Your task to perform on an android device: check storage Image 0: 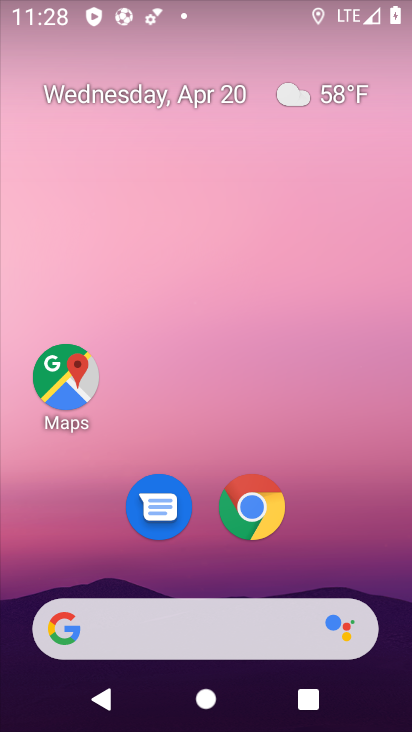
Step 0: drag from (339, 555) to (355, 129)
Your task to perform on an android device: check storage Image 1: 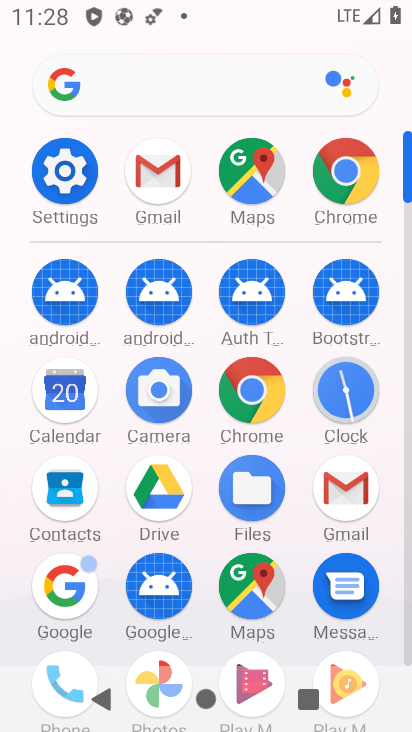
Step 1: click (56, 186)
Your task to perform on an android device: check storage Image 2: 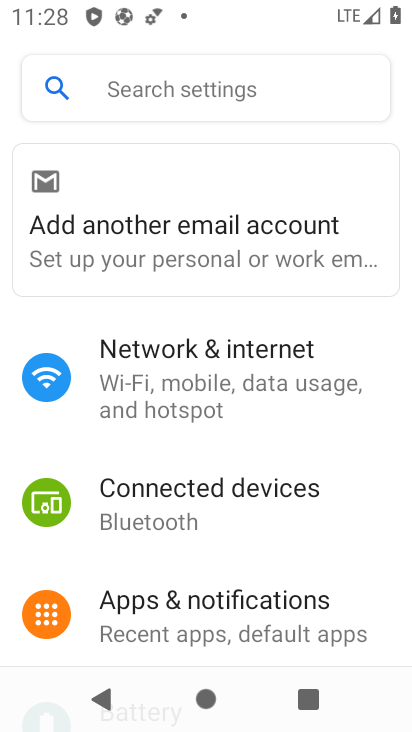
Step 2: drag from (366, 563) to (360, 415)
Your task to perform on an android device: check storage Image 3: 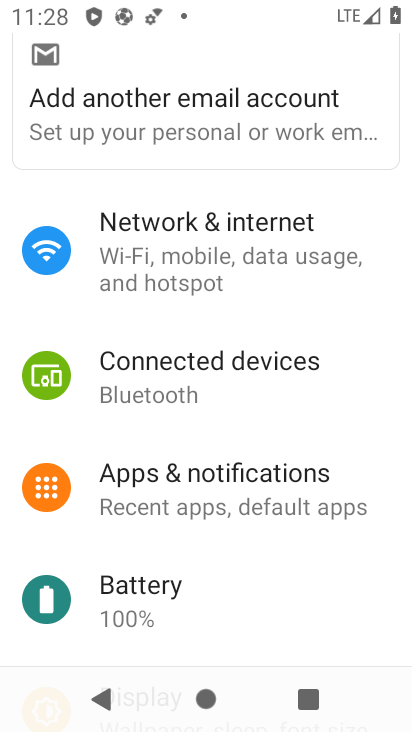
Step 3: drag from (359, 594) to (364, 375)
Your task to perform on an android device: check storage Image 4: 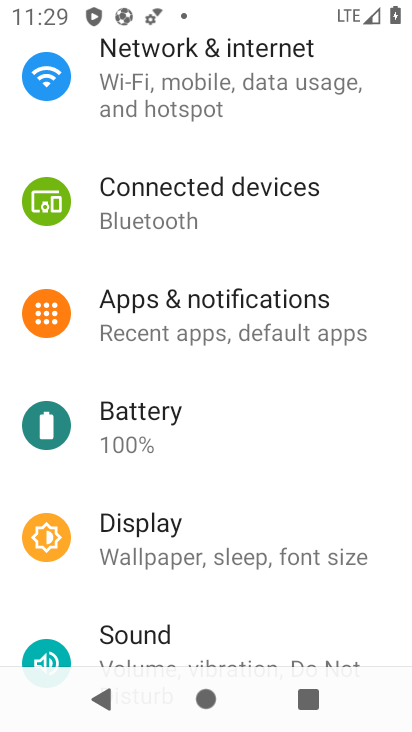
Step 4: drag from (369, 622) to (367, 388)
Your task to perform on an android device: check storage Image 5: 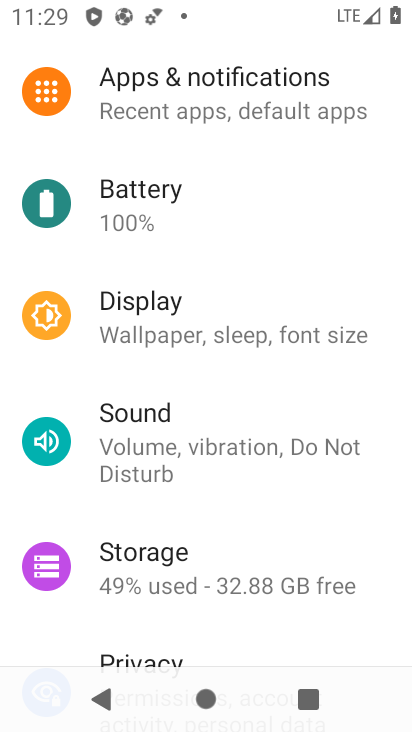
Step 5: drag from (370, 579) to (382, 387)
Your task to perform on an android device: check storage Image 6: 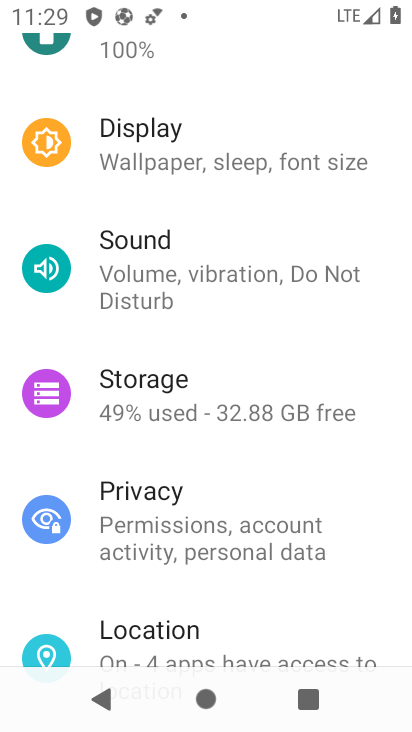
Step 6: click (283, 417)
Your task to perform on an android device: check storage Image 7: 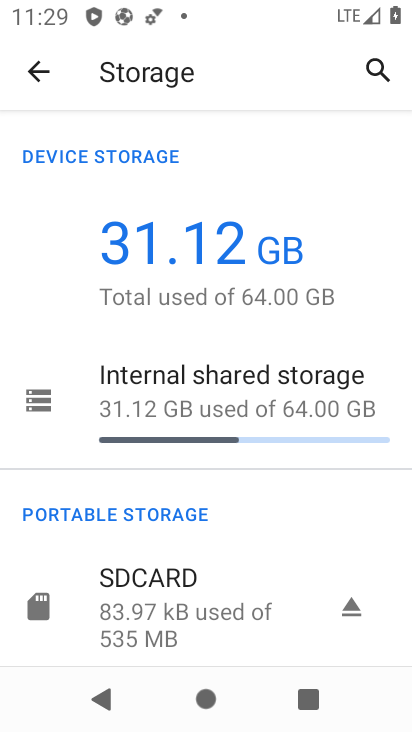
Step 7: task complete